Your task to perform on an android device: Open Android settings Image 0: 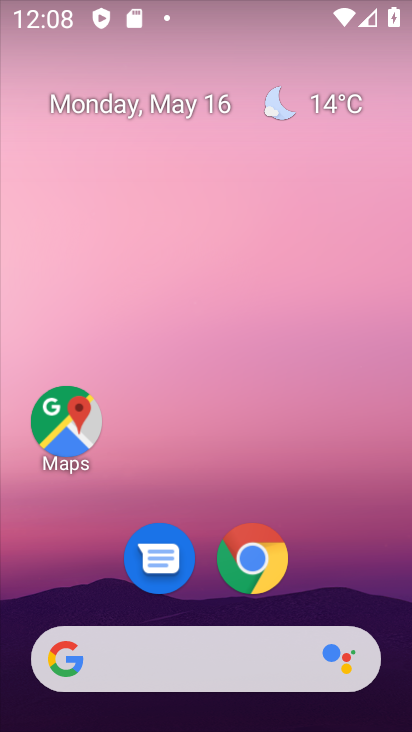
Step 0: drag from (365, 579) to (355, 138)
Your task to perform on an android device: Open Android settings Image 1: 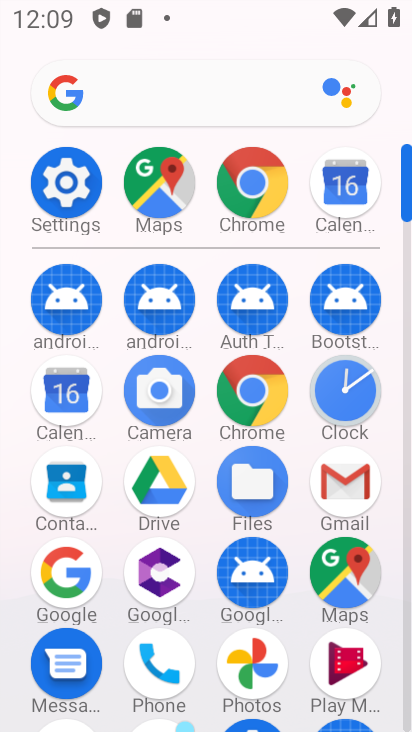
Step 1: click (82, 201)
Your task to perform on an android device: Open Android settings Image 2: 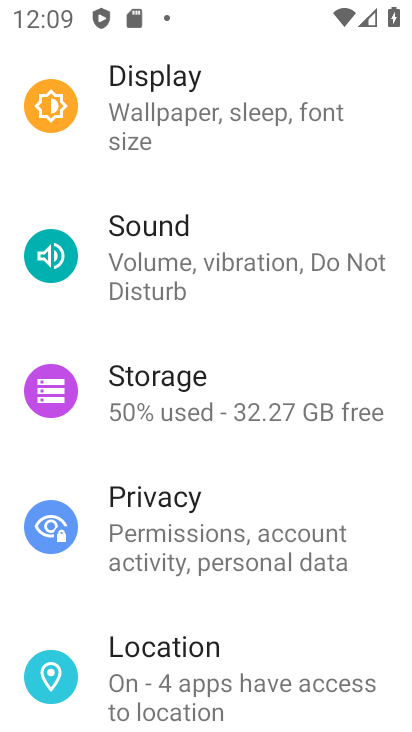
Step 2: drag from (329, 638) to (329, 417)
Your task to perform on an android device: Open Android settings Image 3: 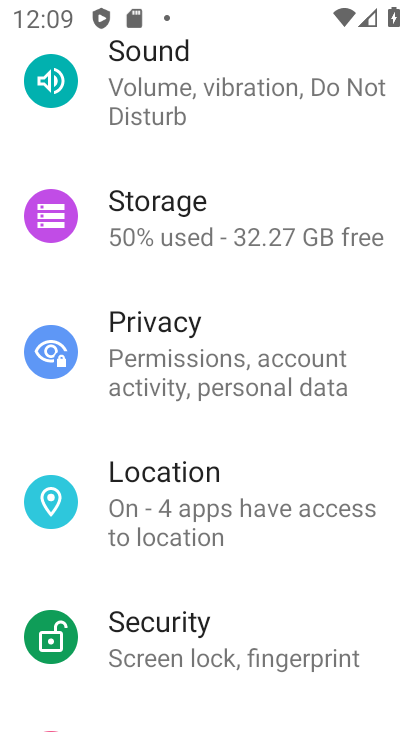
Step 3: drag from (337, 591) to (337, 418)
Your task to perform on an android device: Open Android settings Image 4: 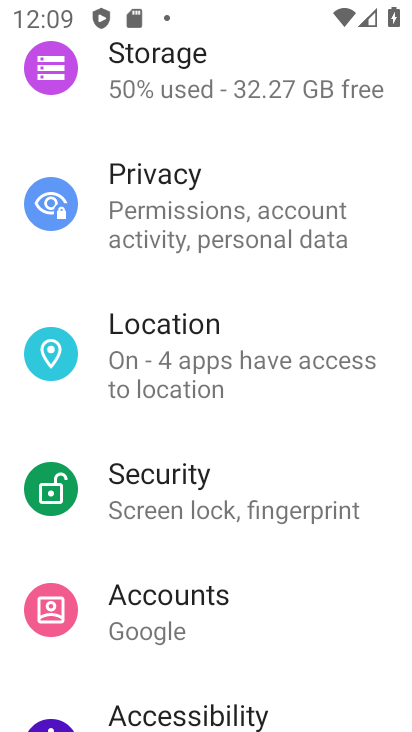
Step 4: drag from (318, 649) to (324, 476)
Your task to perform on an android device: Open Android settings Image 5: 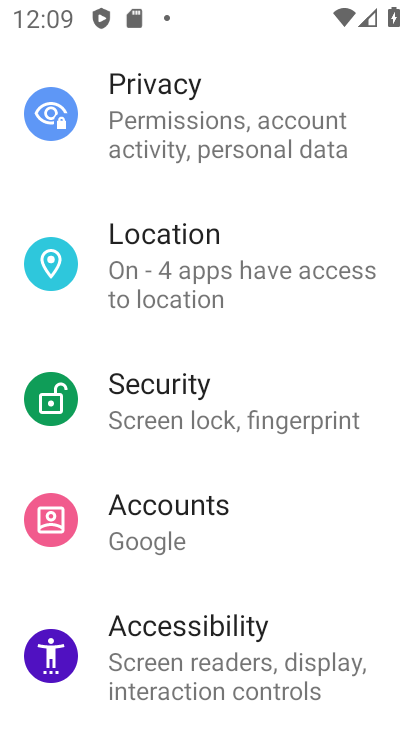
Step 5: drag from (336, 601) to (341, 469)
Your task to perform on an android device: Open Android settings Image 6: 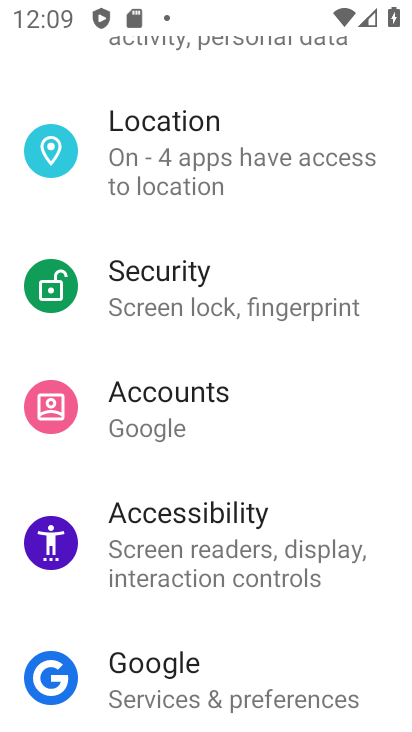
Step 6: drag from (330, 670) to (333, 475)
Your task to perform on an android device: Open Android settings Image 7: 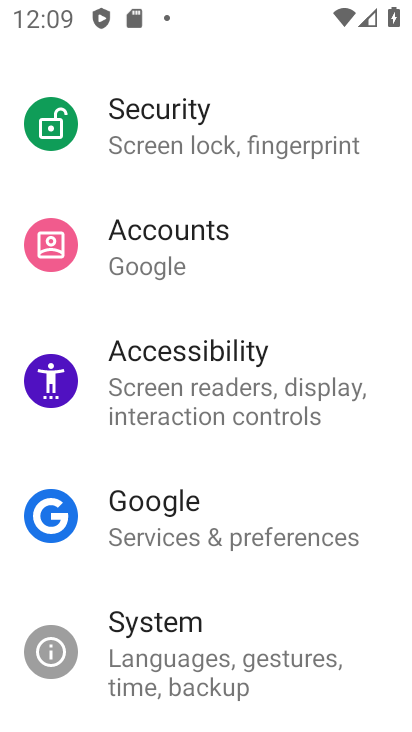
Step 7: click (263, 659)
Your task to perform on an android device: Open Android settings Image 8: 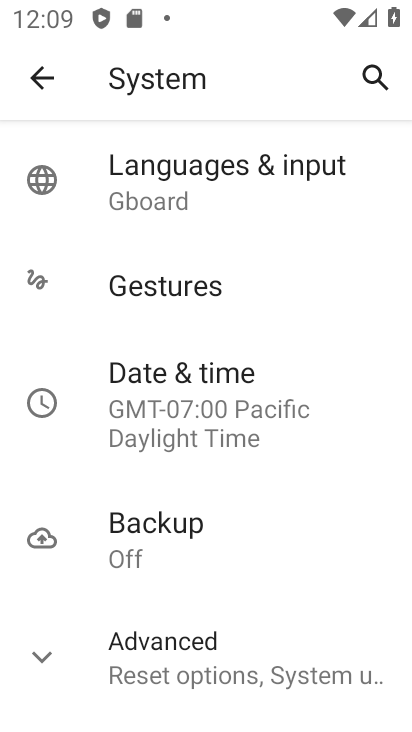
Step 8: click (226, 675)
Your task to perform on an android device: Open Android settings Image 9: 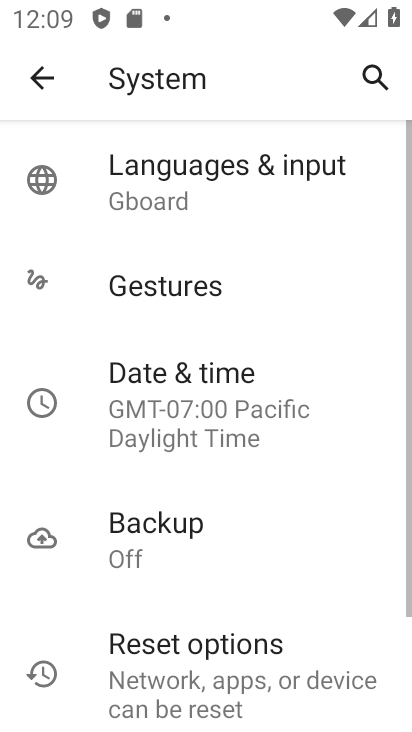
Step 9: task complete